Your task to perform on an android device: See recent photos Image 0: 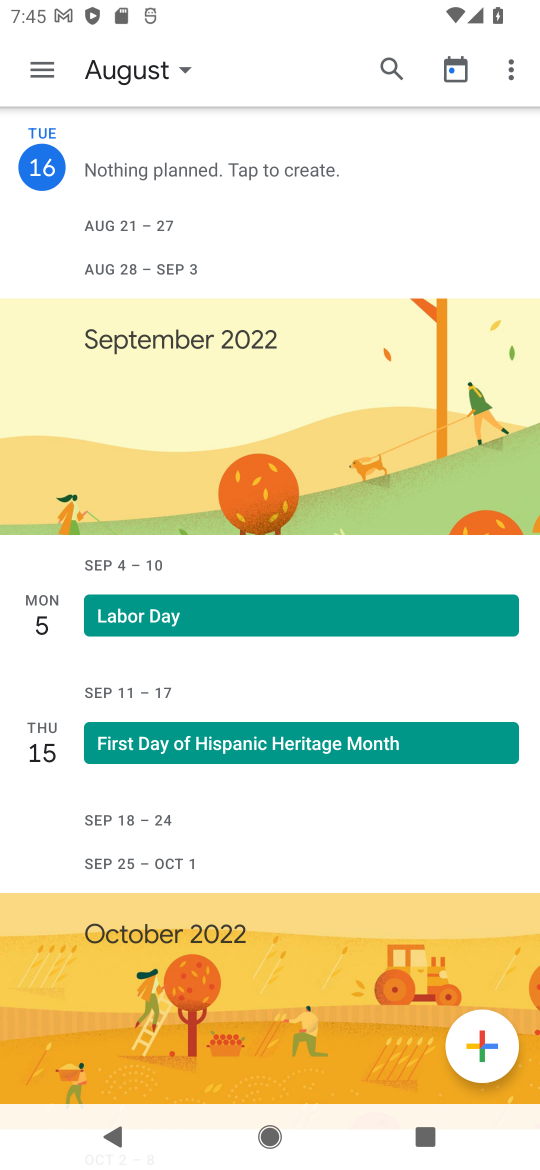
Step 0: press home button
Your task to perform on an android device: See recent photos Image 1: 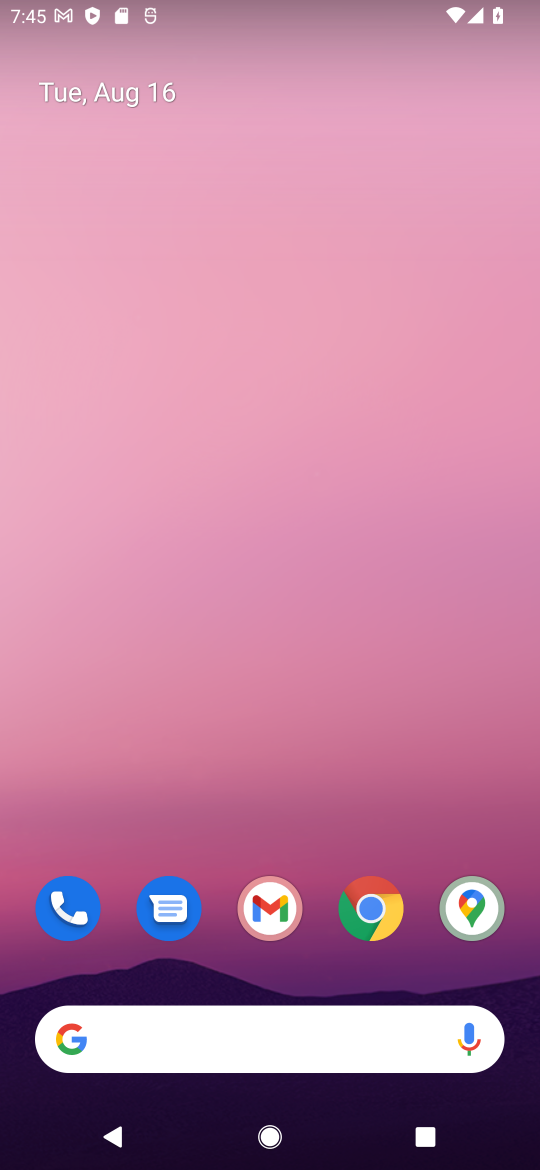
Step 1: drag from (224, 924) to (294, 198)
Your task to perform on an android device: See recent photos Image 2: 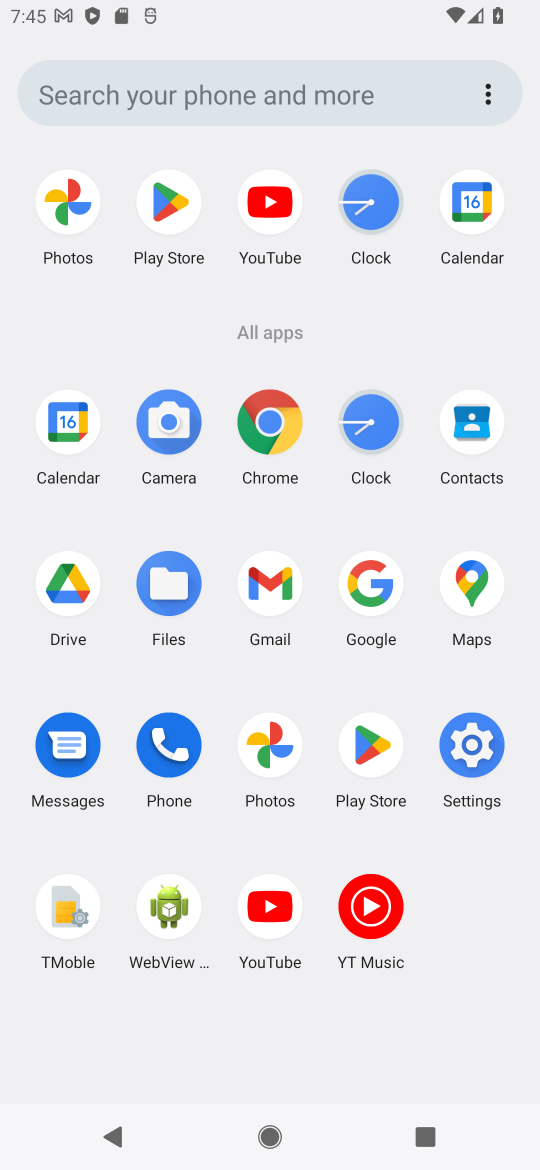
Step 2: click (264, 758)
Your task to perform on an android device: See recent photos Image 3: 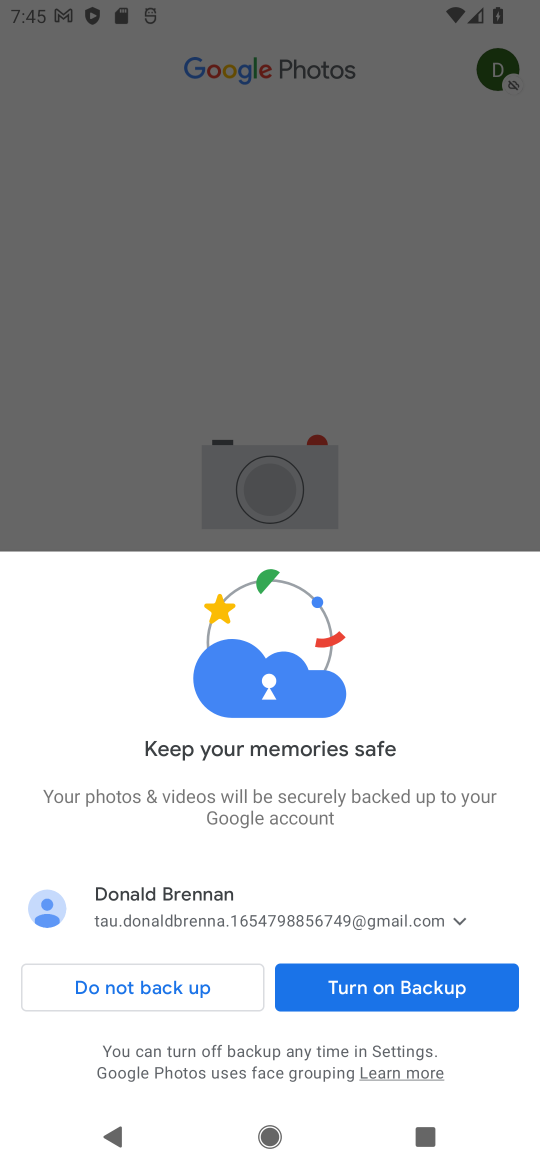
Step 3: click (392, 987)
Your task to perform on an android device: See recent photos Image 4: 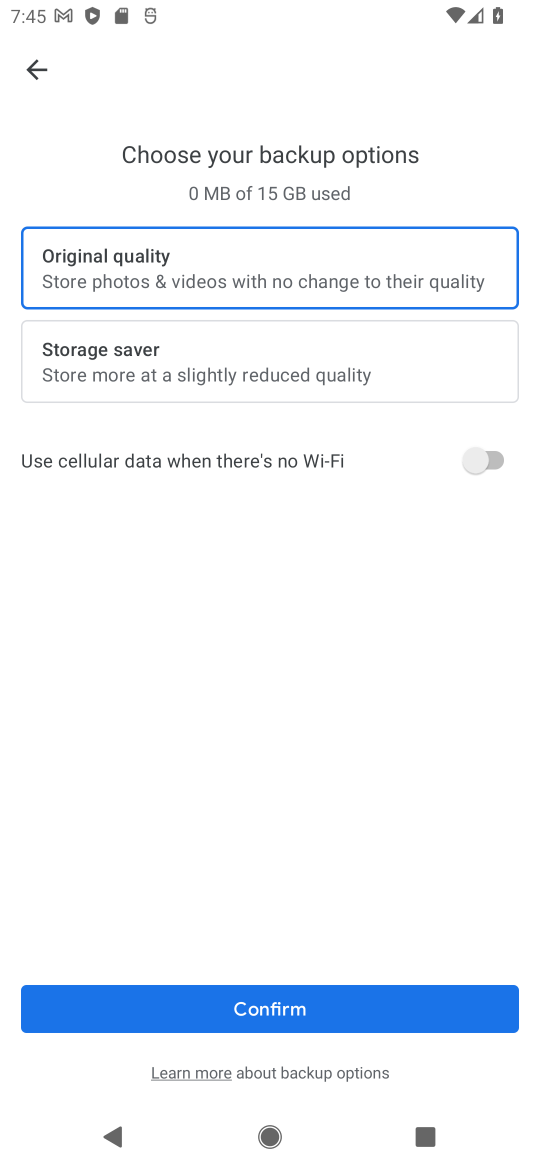
Step 4: click (312, 1006)
Your task to perform on an android device: See recent photos Image 5: 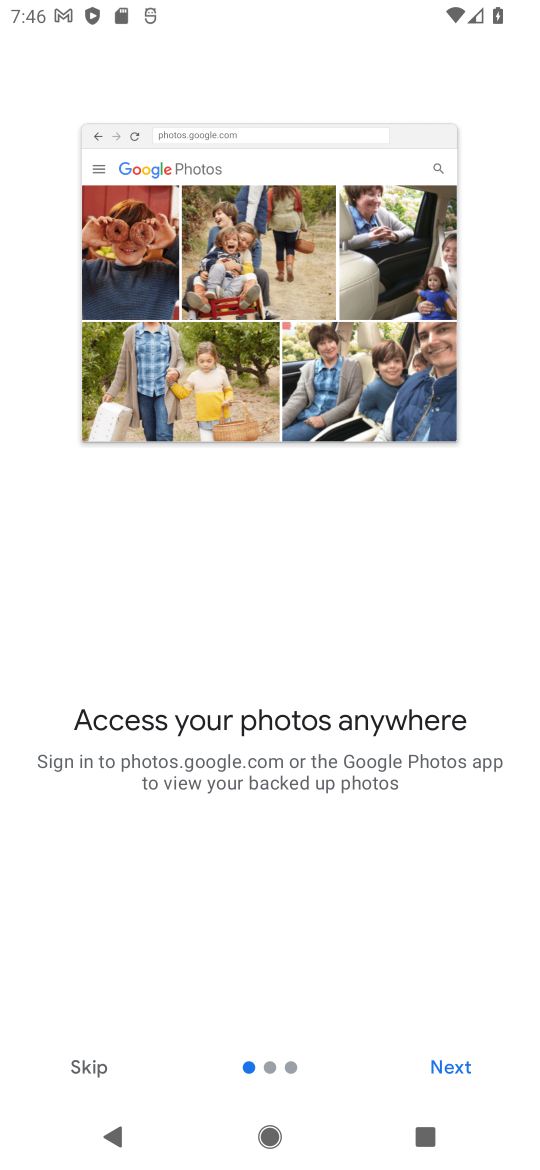
Step 5: click (449, 1065)
Your task to perform on an android device: See recent photos Image 6: 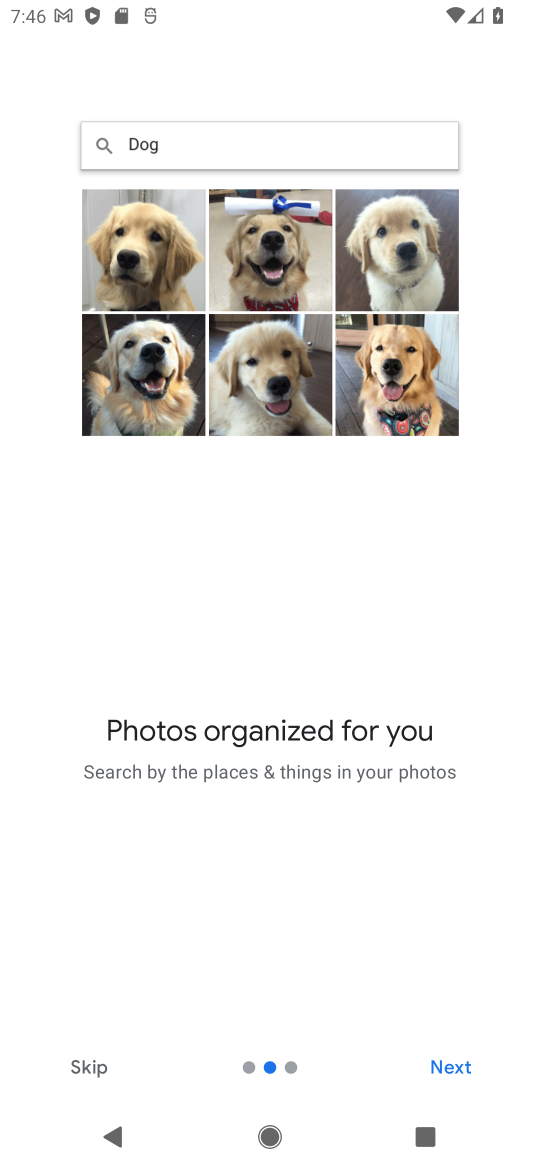
Step 6: click (449, 1065)
Your task to perform on an android device: See recent photos Image 7: 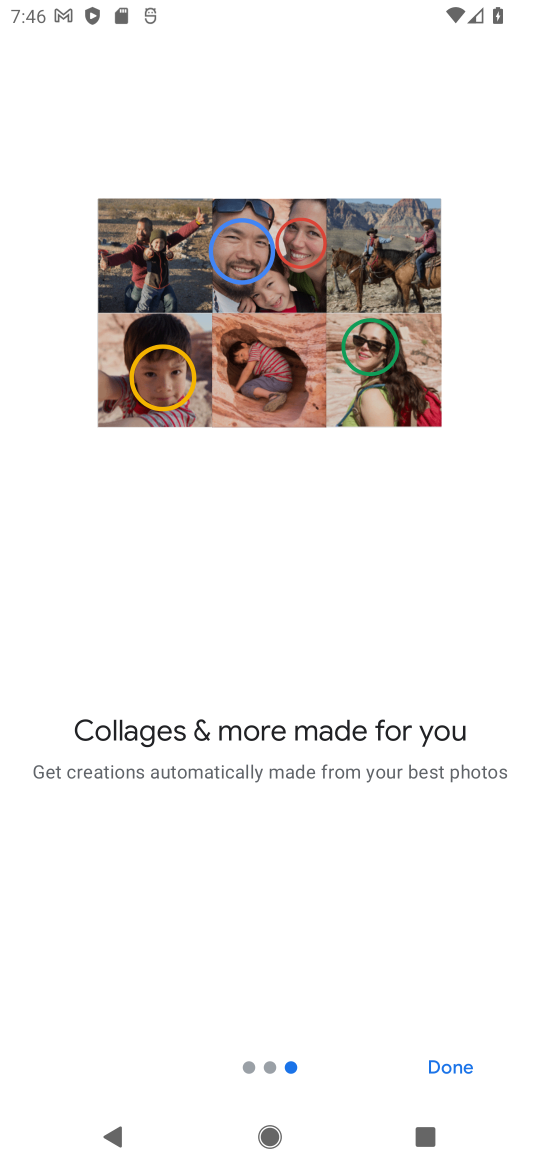
Step 7: click (449, 1065)
Your task to perform on an android device: See recent photos Image 8: 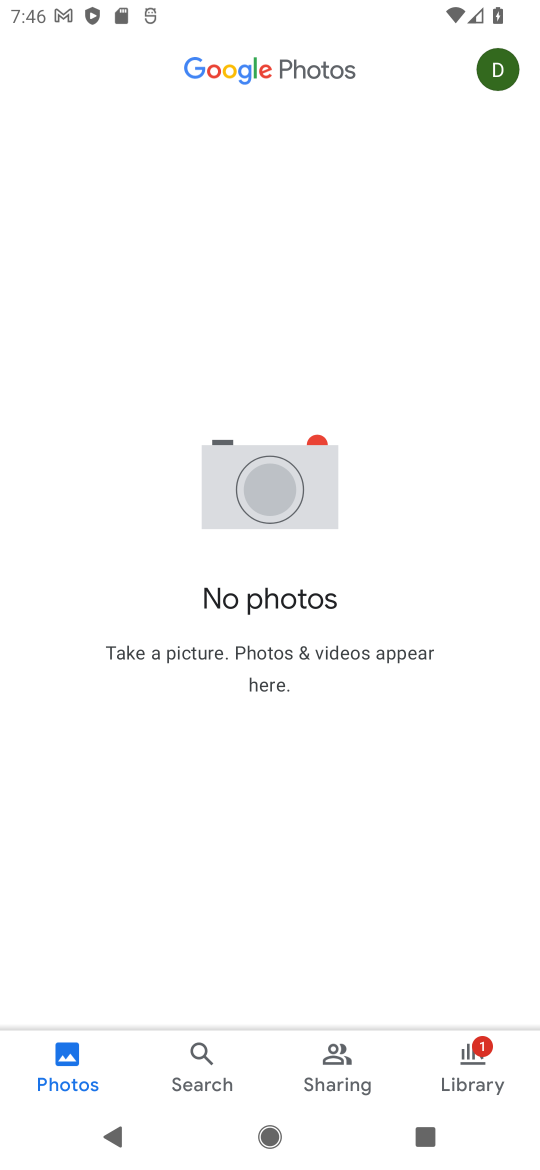
Step 8: task complete